Your task to perform on an android device: turn off javascript in the chrome app Image 0: 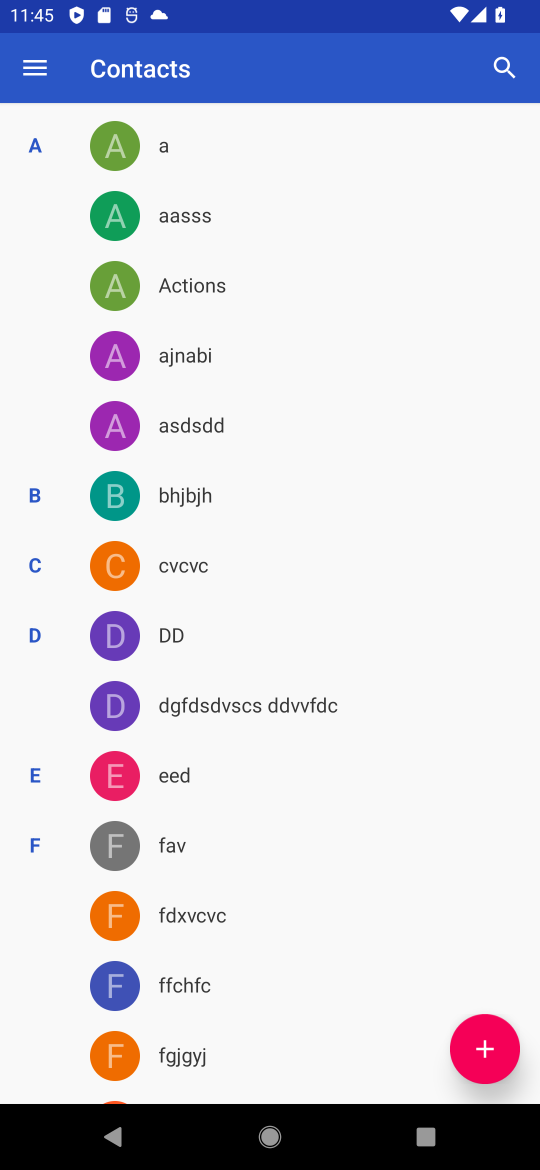
Step 0: press home button
Your task to perform on an android device: turn off javascript in the chrome app Image 1: 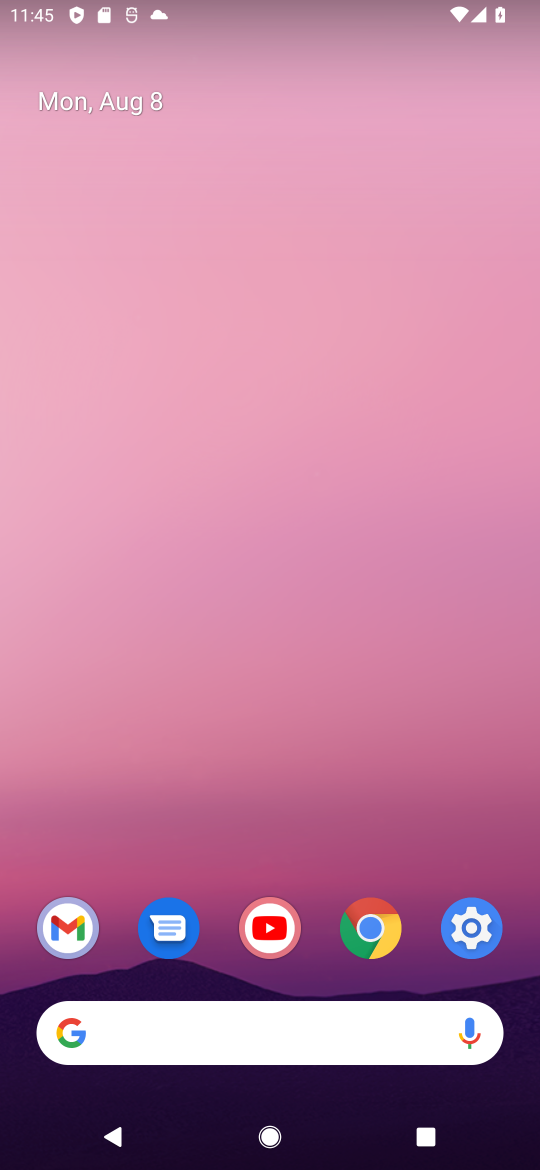
Step 1: click (365, 932)
Your task to perform on an android device: turn off javascript in the chrome app Image 2: 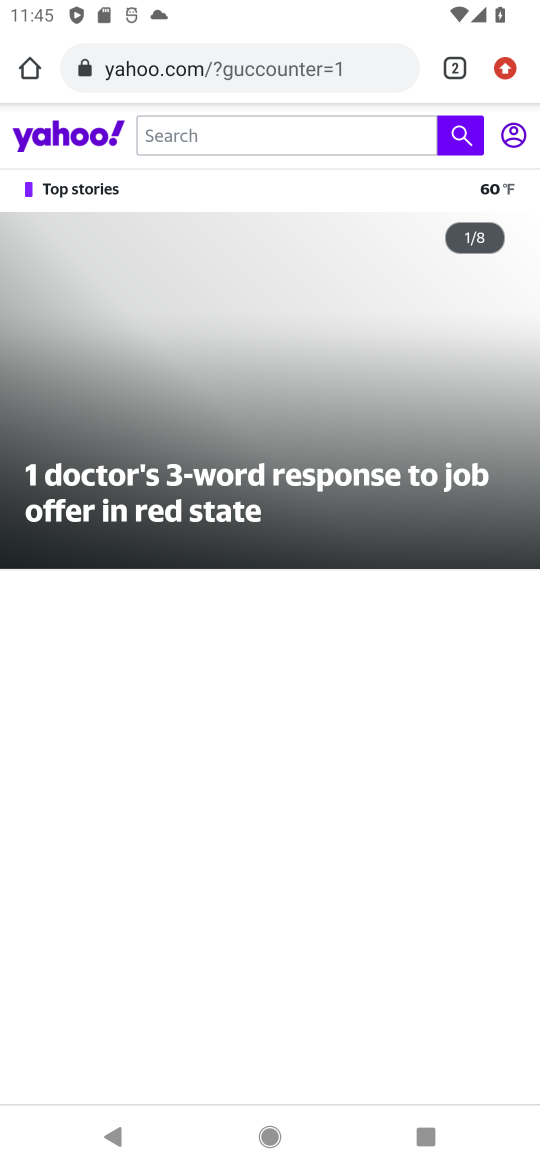
Step 2: click (510, 62)
Your task to perform on an android device: turn off javascript in the chrome app Image 3: 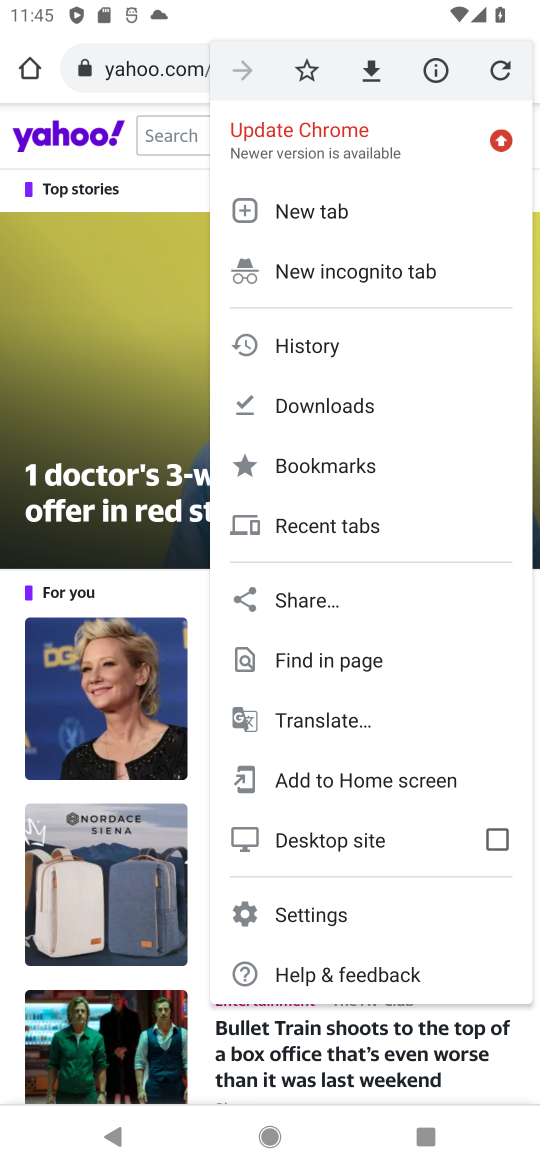
Step 3: click (305, 905)
Your task to perform on an android device: turn off javascript in the chrome app Image 4: 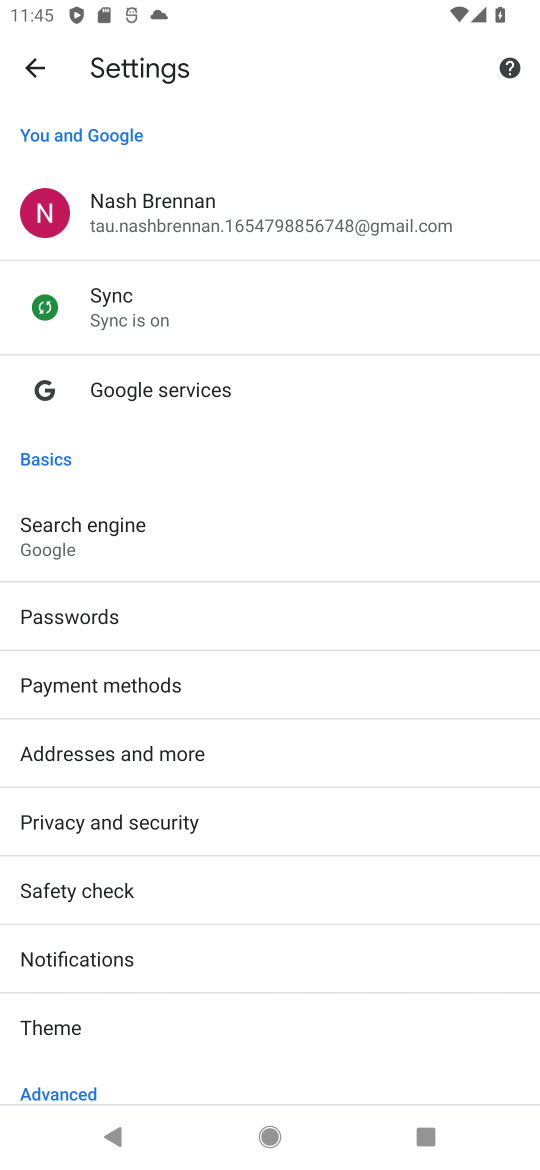
Step 4: drag from (106, 1001) to (94, 681)
Your task to perform on an android device: turn off javascript in the chrome app Image 5: 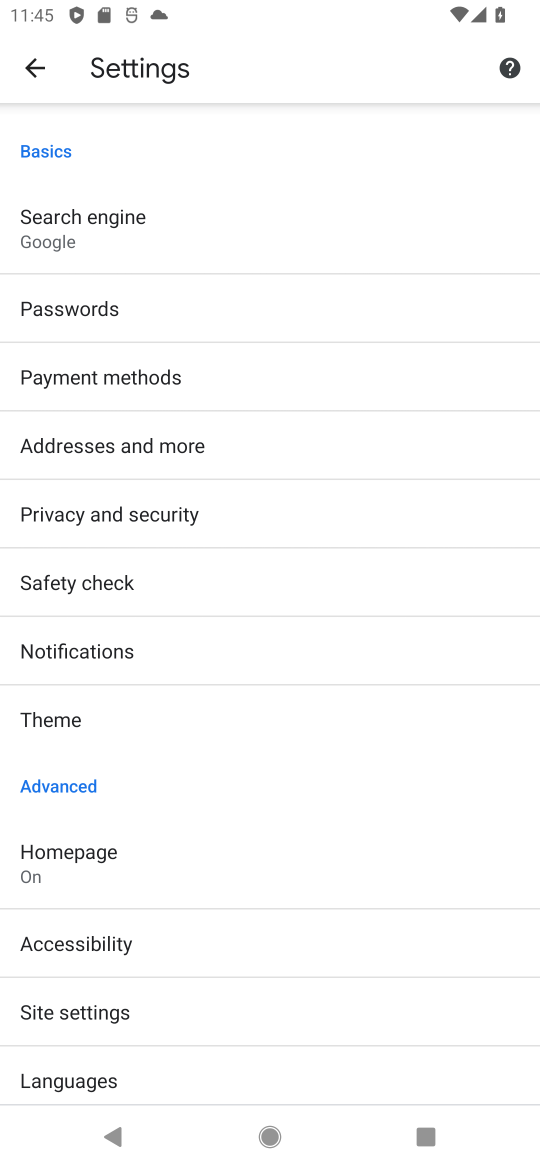
Step 5: click (88, 1012)
Your task to perform on an android device: turn off javascript in the chrome app Image 6: 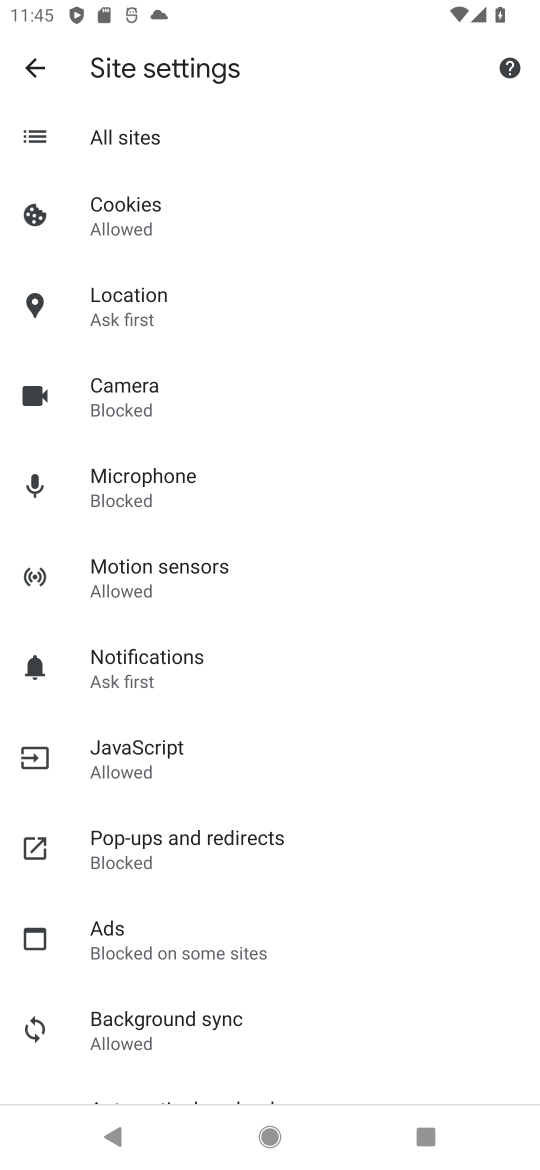
Step 6: click (139, 759)
Your task to perform on an android device: turn off javascript in the chrome app Image 7: 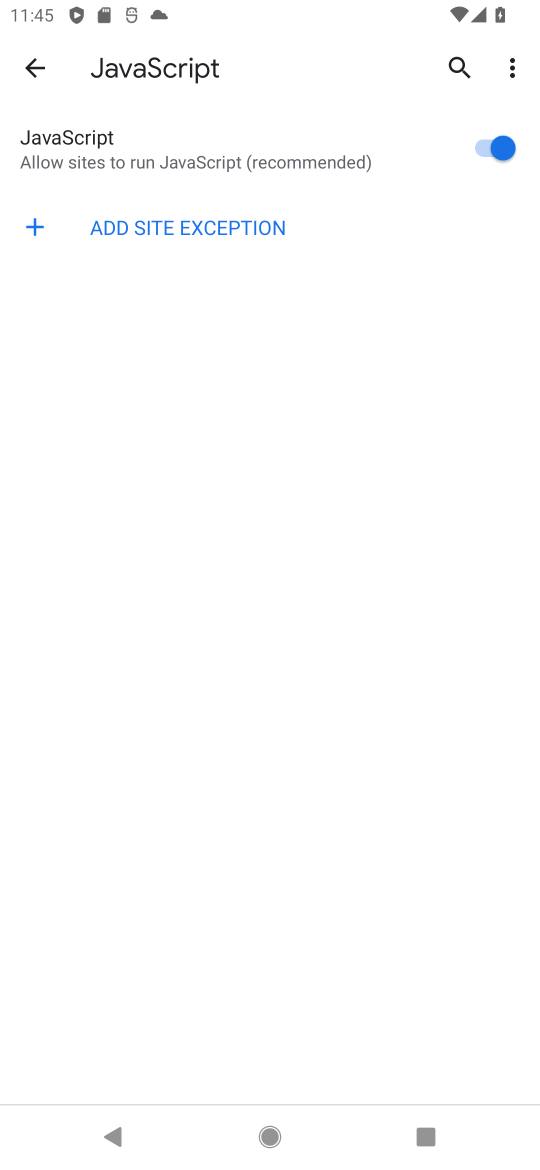
Step 7: click (501, 157)
Your task to perform on an android device: turn off javascript in the chrome app Image 8: 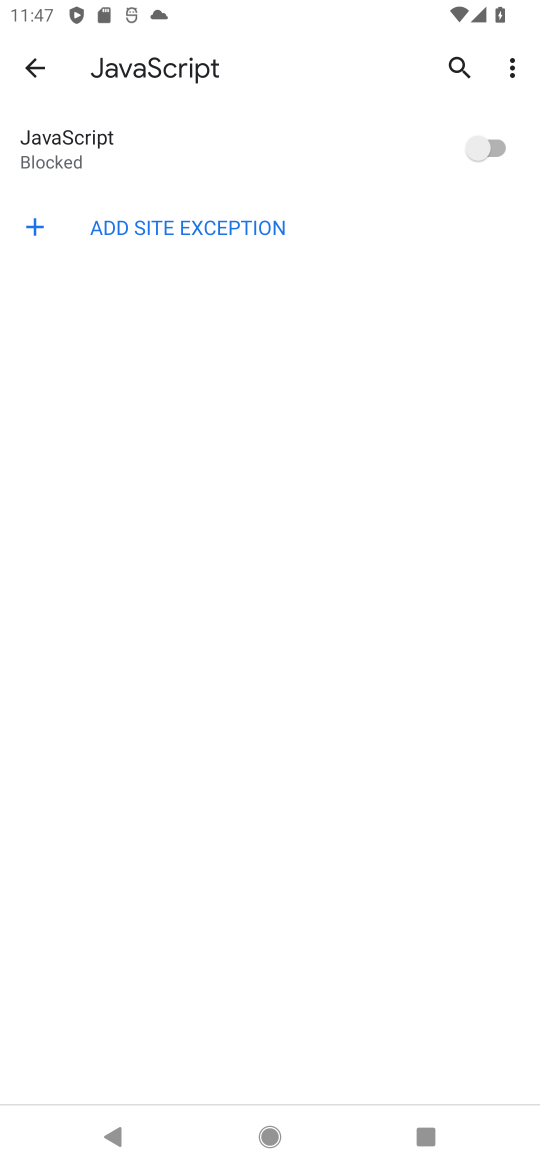
Step 8: task complete